Your task to perform on an android device: Find coffee shops on Maps Image 0: 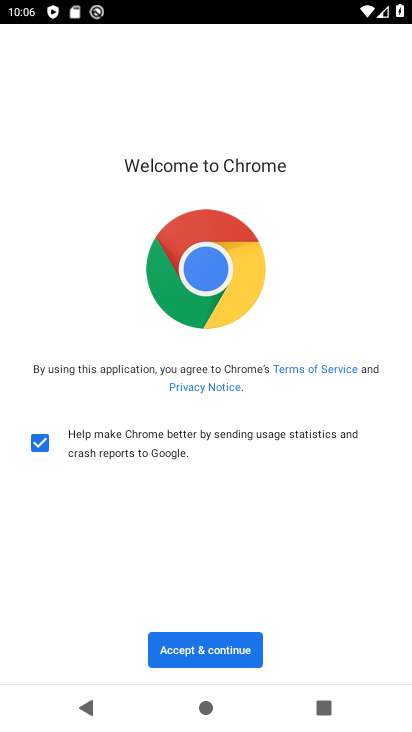
Step 0: press home button
Your task to perform on an android device: Find coffee shops on Maps Image 1: 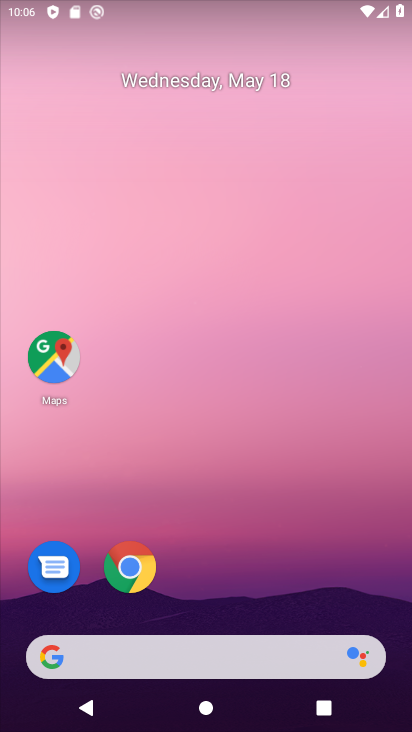
Step 1: drag from (270, 660) to (257, 244)
Your task to perform on an android device: Find coffee shops on Maps Image 2: 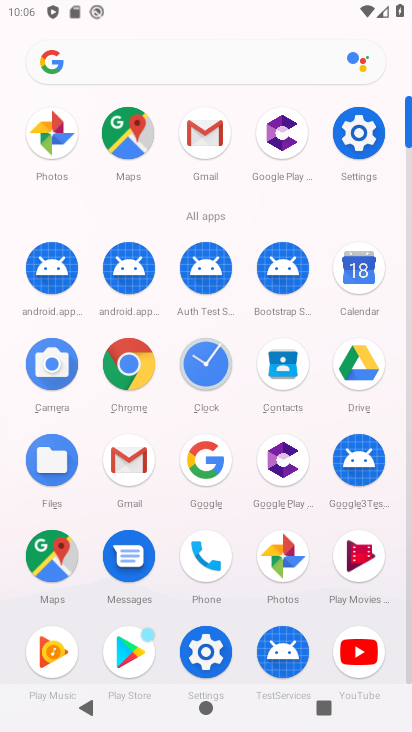
Step 2: click (138, 122)
Your task to perform on an android device: Find coffee shops on Maps Image 3: 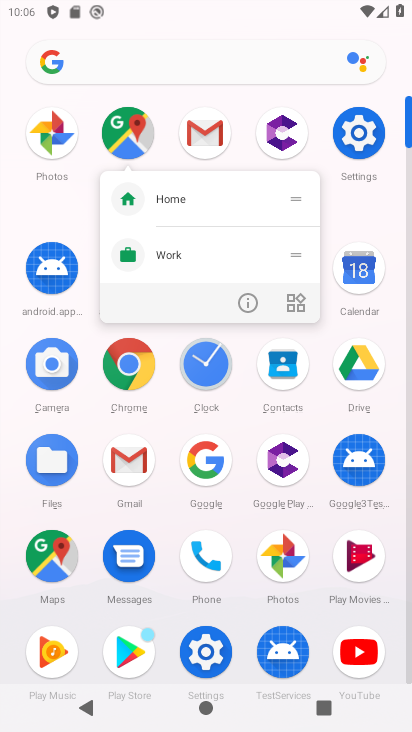
Step 3: click (143, 122)
Your task to perform on an android device: Find coffee shops on Maps Image 4: 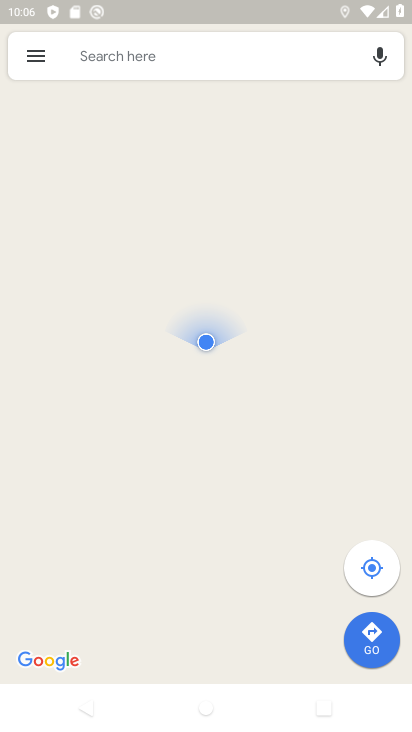
Step 4: click (158, 60)
Your task to perform on an android device: Find coffee shops on Maps Image 5: 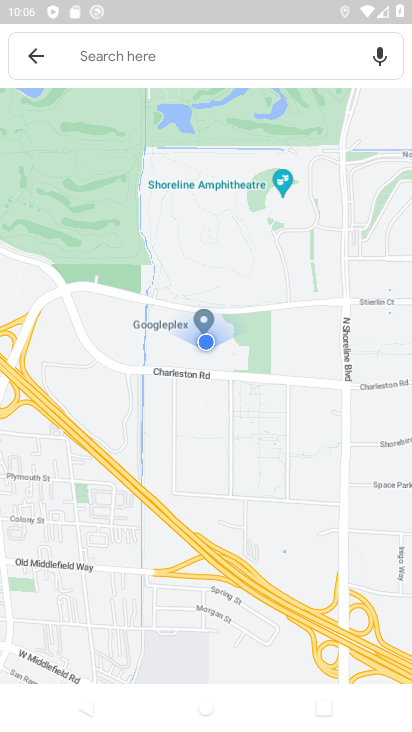
Step 5: click (146, 60)
Your task to perform on an android device: Find coffee shops on Maps Image 6: 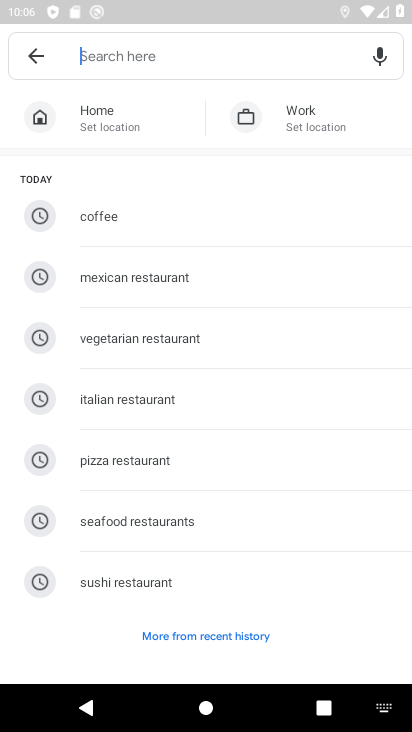
Step 6: click (371, 705)
Your task to perform on an android device: Find coffee shops on Maps Image 7: 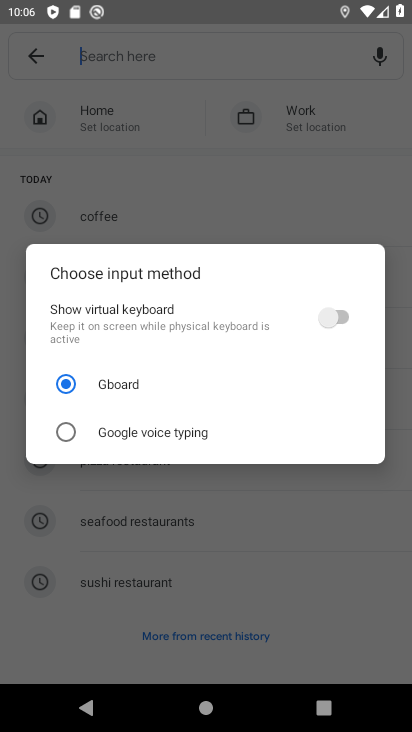
Step 7: click (353, 311)
Your task to perform on an android device: Find coffee shops on Maps Image 8: 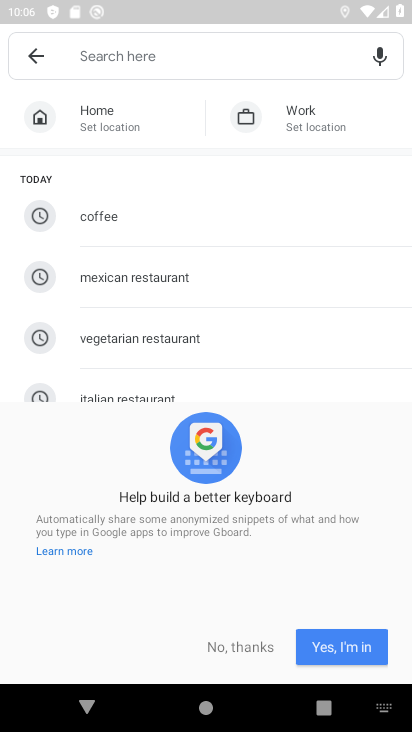
Step 8: click (226, 655)
Your task to perform on an android device: Find coffee shops on Maps Image 9: 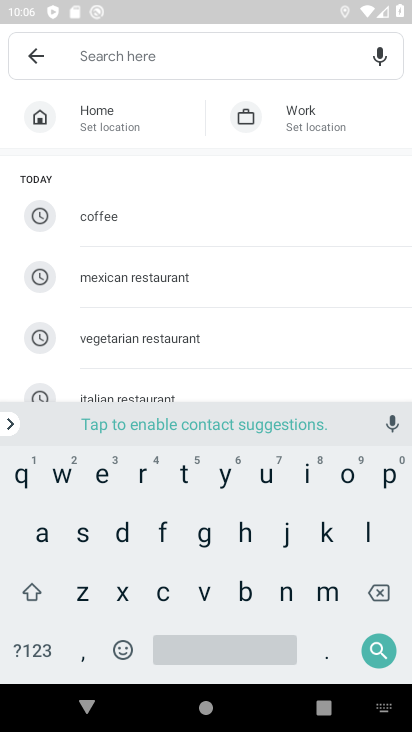
Step 9: click (162, 599)
Your task to perform on an android device: Find coffee shops on Maps Image 10: 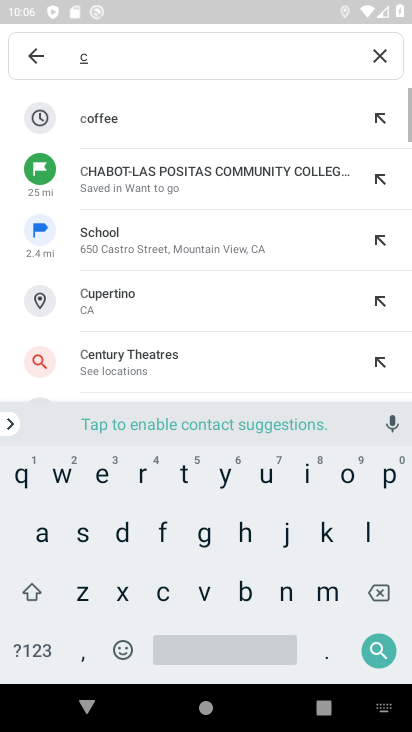
Step 10: click (343, 472)
Your task to perform on an android device: Find coffee shops on Maps Image 11: 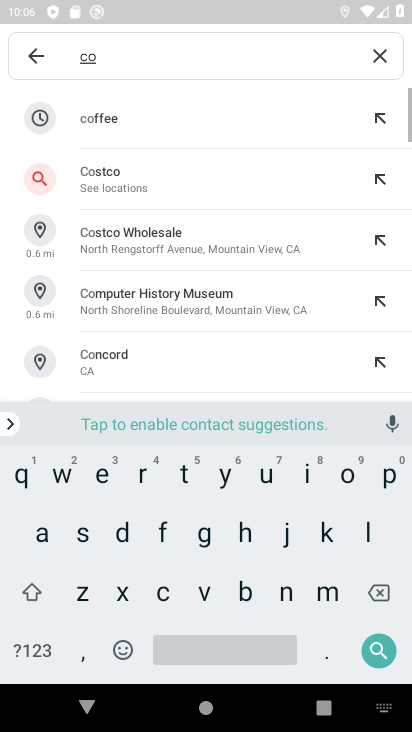
Step 11: click (124, 118)
Your task to perform on an android device: Find coffee shops on Maps Image 12: 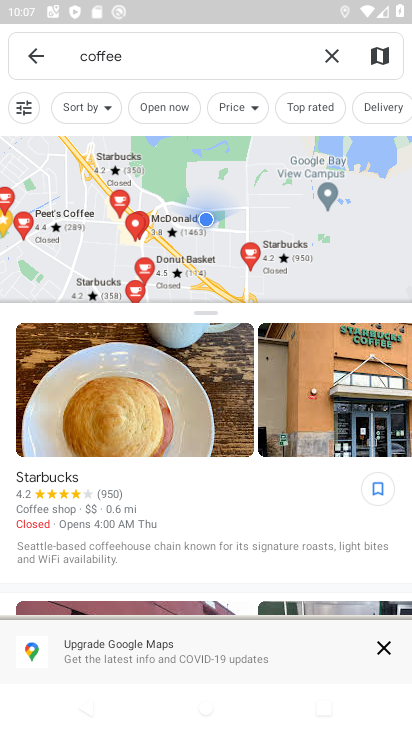
Step 12: click (89, 221)
Your task to perform on an android device: Find coffee shops on Maps Image 13: 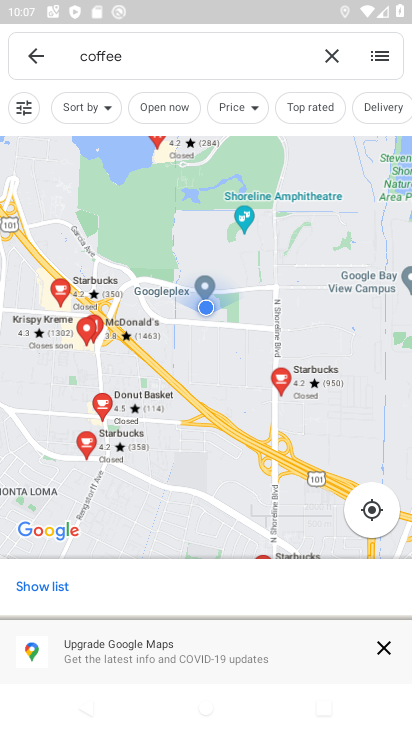
Step 13: task complete